Your task to perform on an android device: Open accessibility settings Image 0: 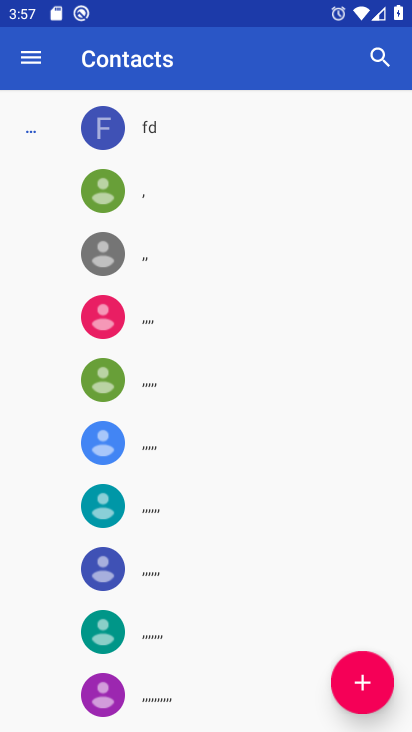
Step 0: press home button
Your task to perform on an android device: Open accessibility settings Image 1: 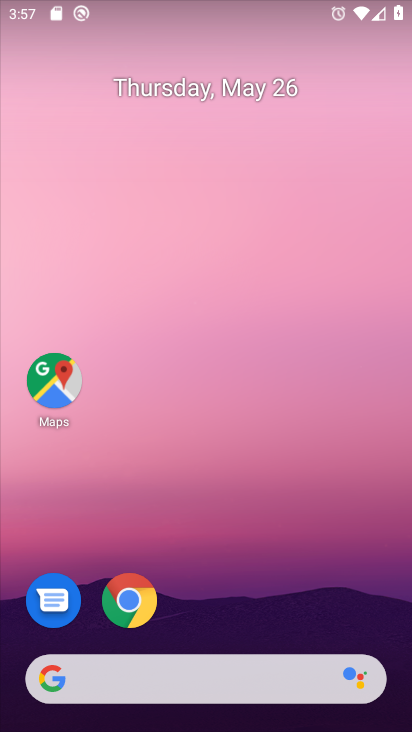
Step 1: drag from (196, 621) to (248, 155)
Your task to perform on an android device: Open accessibility settings Image 2: 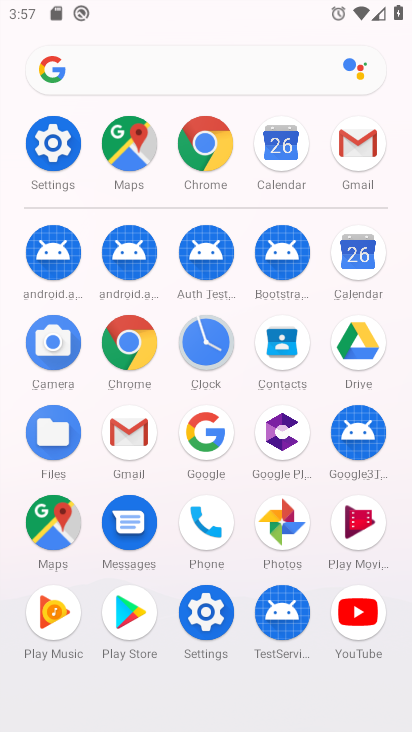
Step 2: click (51, 138)
Your task to perform on an android device: Open accessibility settings Image 3: 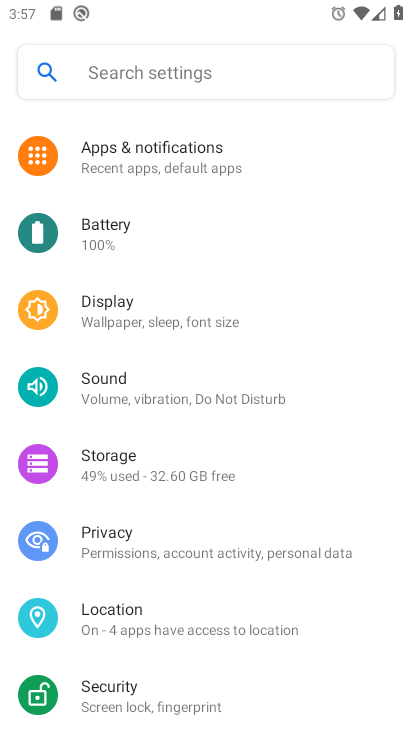
Step 3: drag from (182, 621) to (237, 198)
Your task to perform on an android device: Open accessibility settings Image 4: 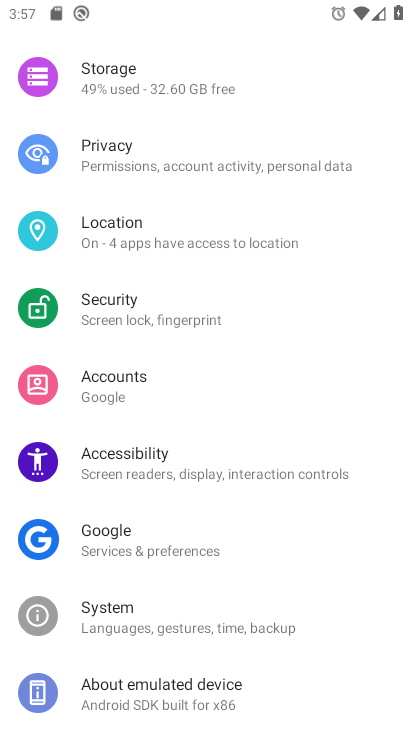
Step 4: click (164, 473)
Your task to perform on an android device: Open accessibility settings Image 5: 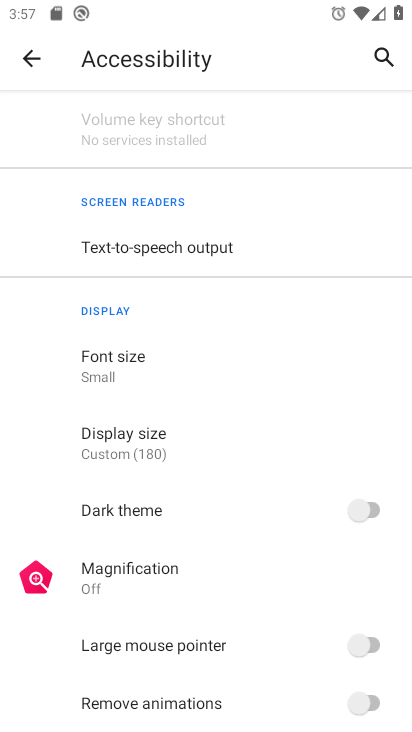
Step 5: task complete